Your task to perform on an android device: Go to Google Image 0: 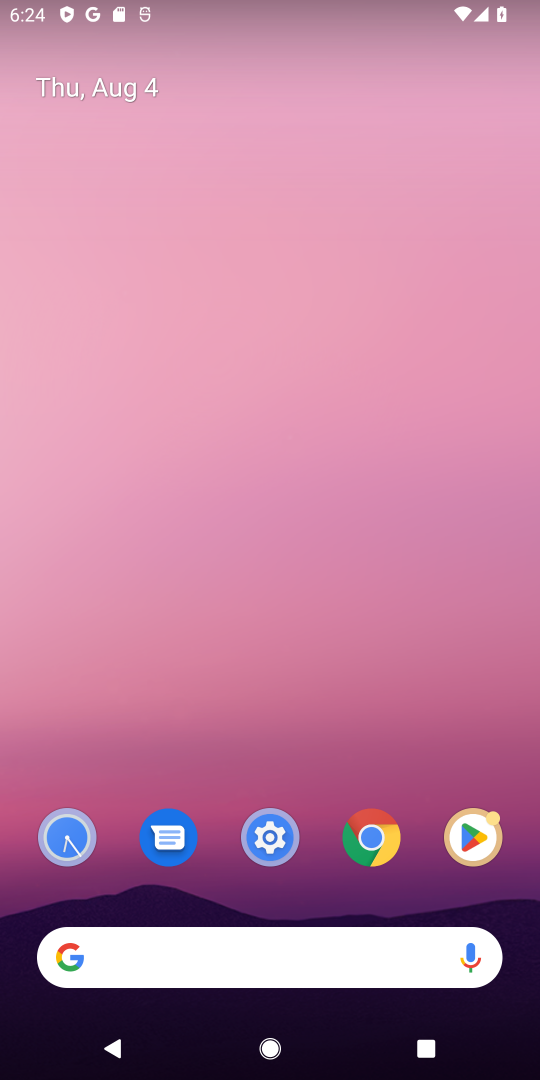
Step 0: drag from (301, 410) to (304, 10)
Your task to perform on an android device: Go to Google Image 1: 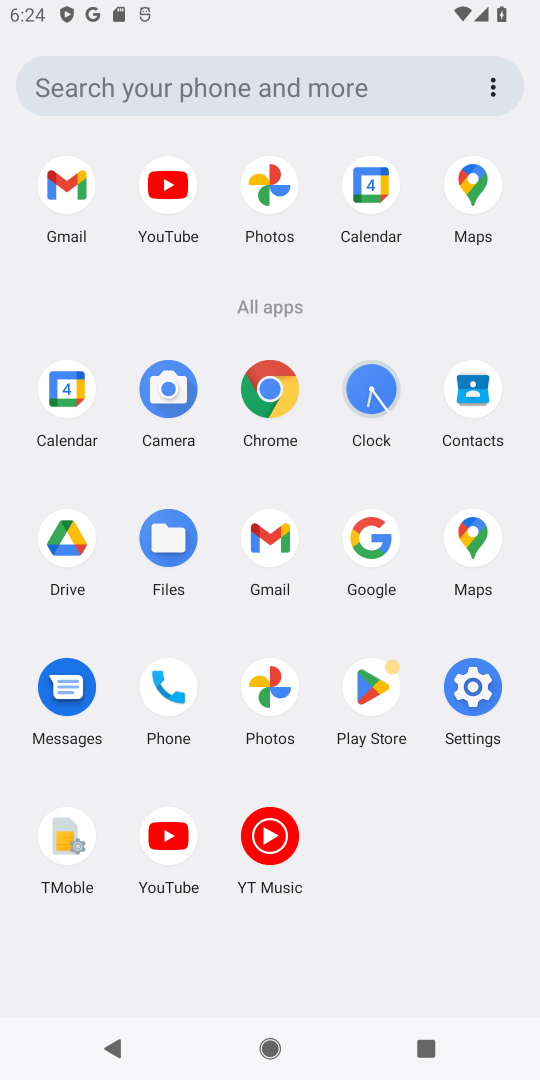
Step 1: click (369, 537)
Your task to perform on an android device: Go to Google Image 2: 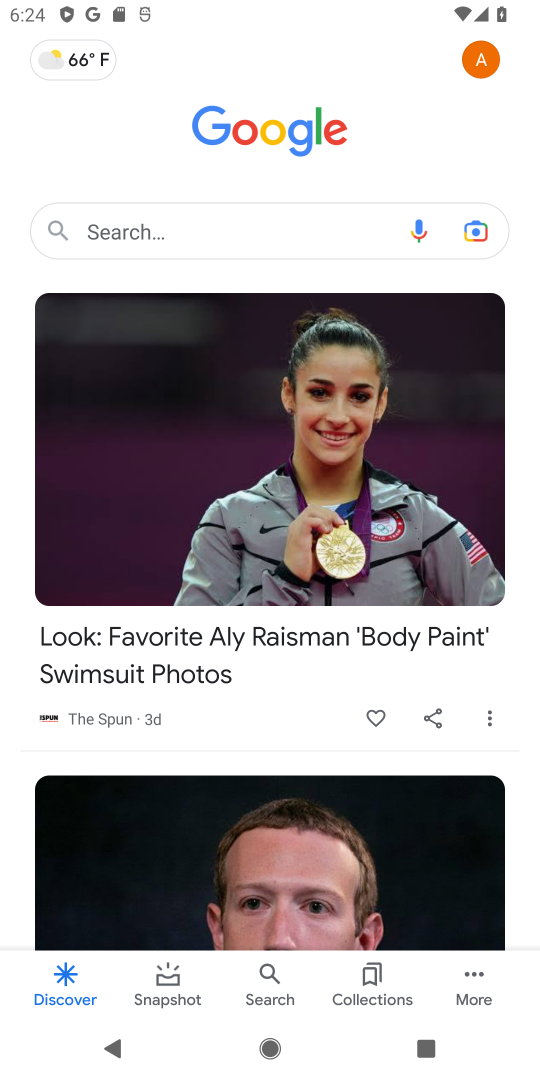
Step 2: click (165, 978)
Your task to perform on an android device: Go to Google Image 3: 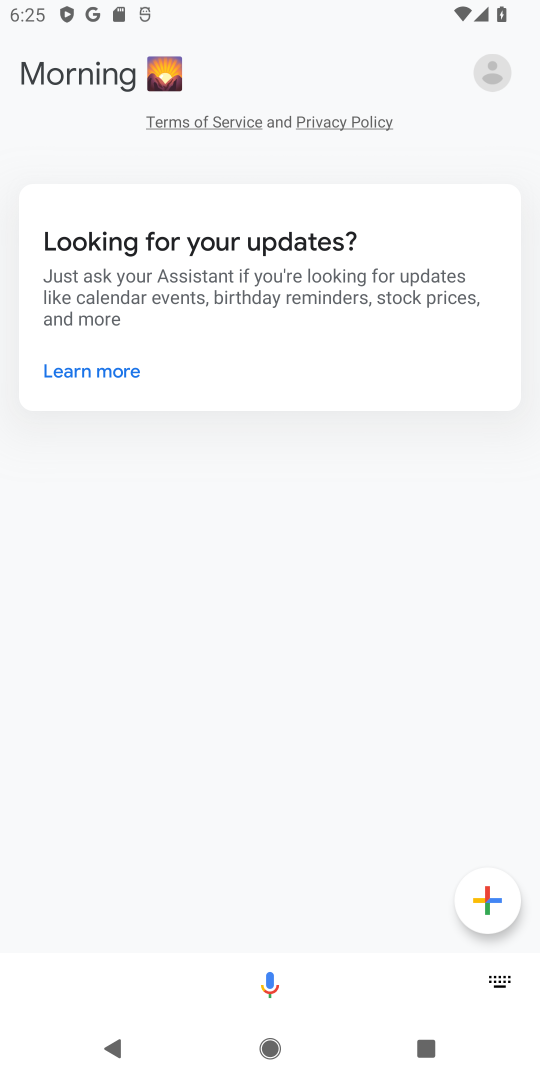
Step 3: click (261, 978)
Your task to perform on an android device: Go to Google Image 4: 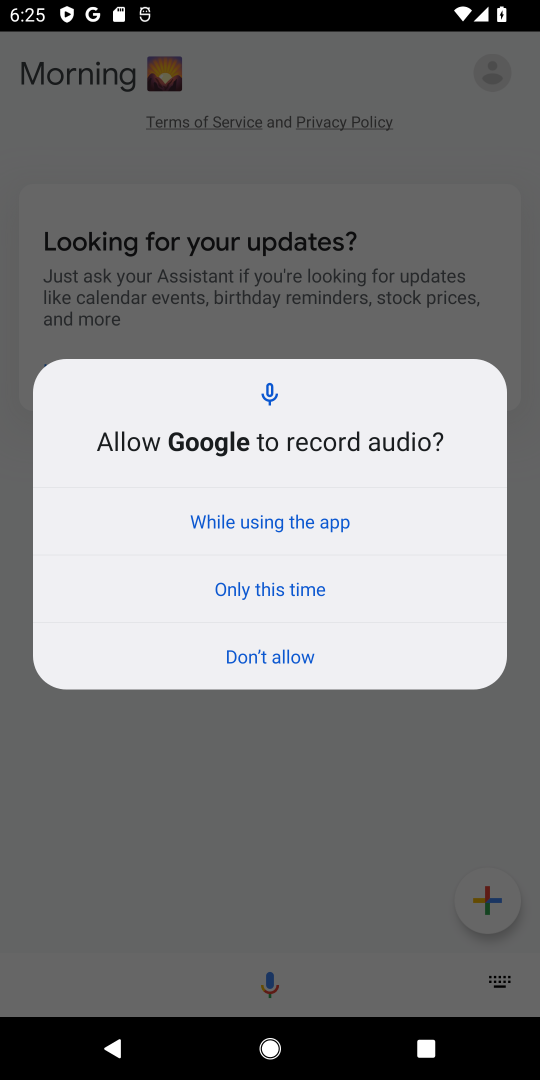
Step 4: click (289, 523)
Your task to perform on an android device: Go to Google Image 5: 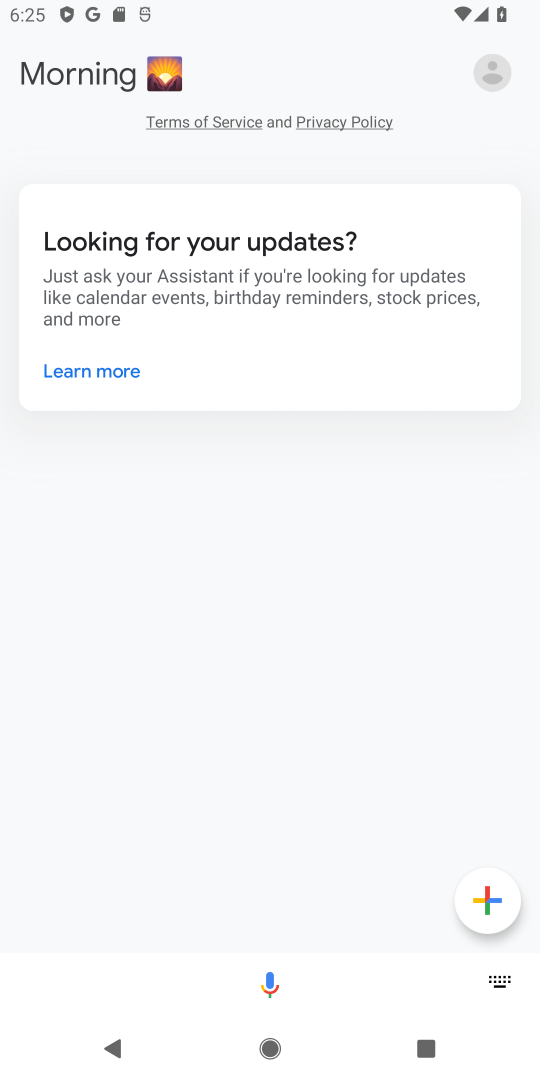
Step 5: task complete